Your task to perform on an android device: create a new album in the google photos Image 0: 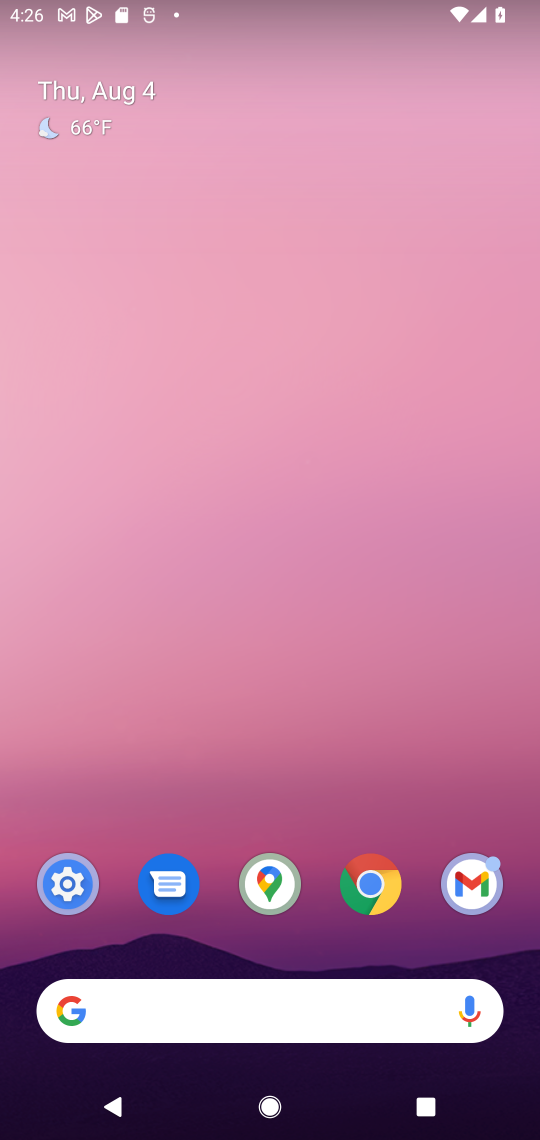
Step 0: click (292, 891)
Your task to perform on an android device: create a new album in the google photos Image 1: 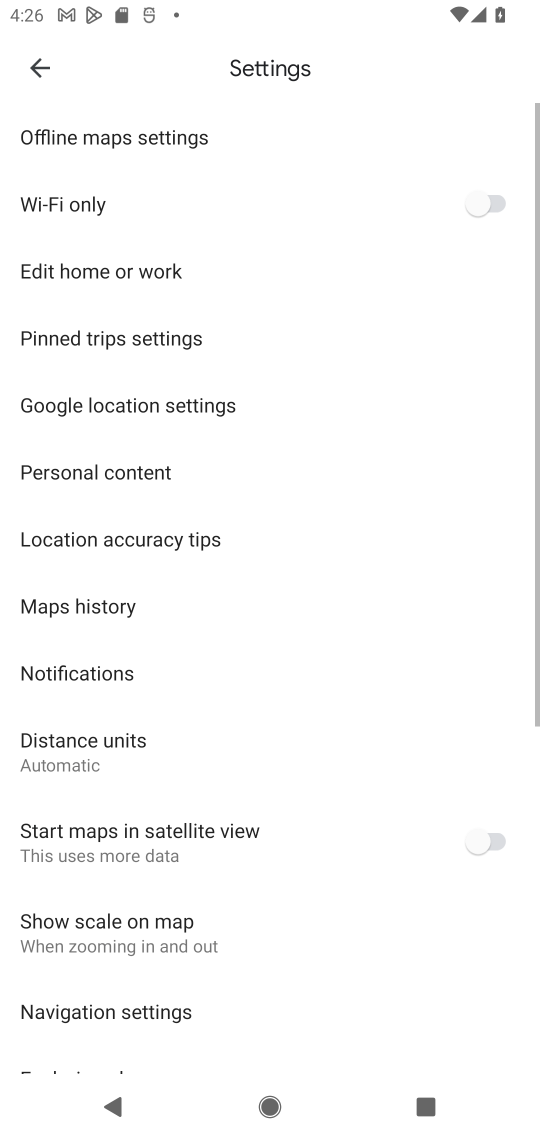
Step 1: task complete